Your task to perform on an android device: When is my next appointment? Image 0: 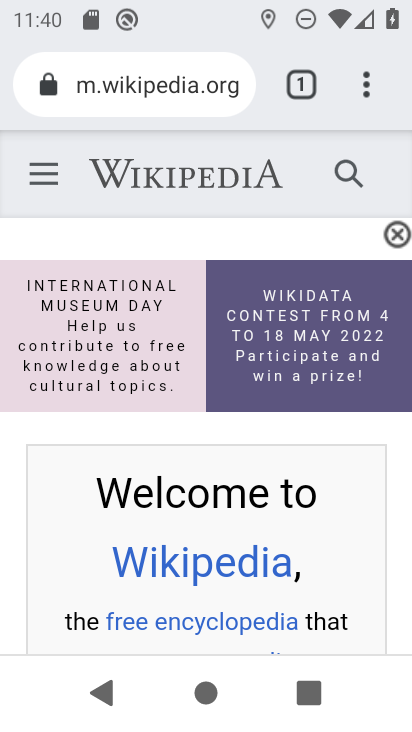
Step 0: press home button
Your task to perform on an android device: When is my next appointment? Image 1: 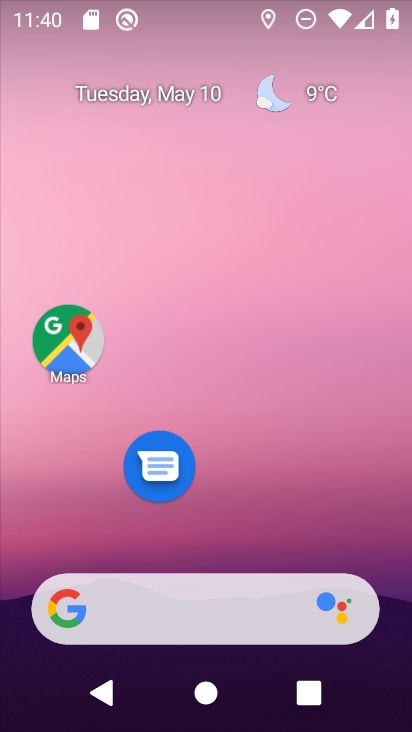
Step 1: drag from (277, 530) to (295, 76)
Your task to perform on an android device: When is my next appointment? Image 2: 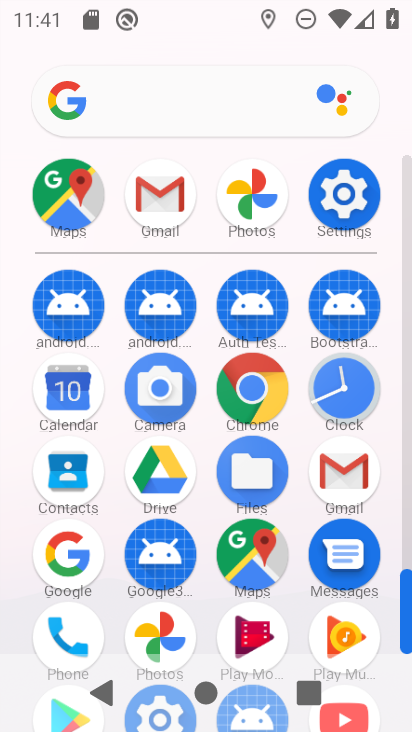
Step 2: click (61, 389)
Your task to perform on an android device: When is my next appointment? Image 3: 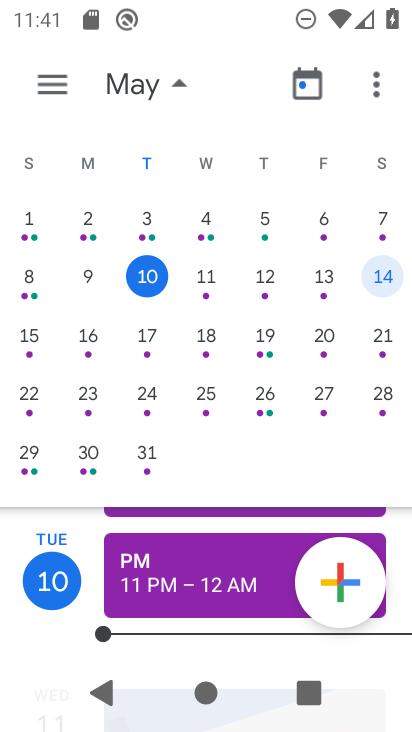
Step 3: click (152, 286)
Your task to perform on an android device: When is my next appointment? Image 4: 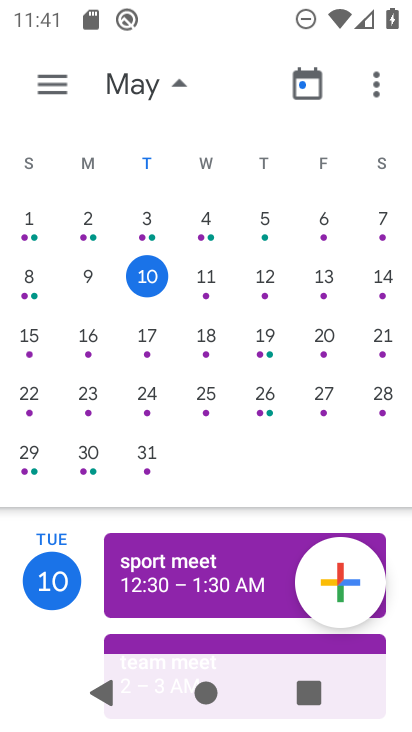
Step 4: task complete